Your task to perform on an android device: turn off priority inbox in the gmail app Image 0: 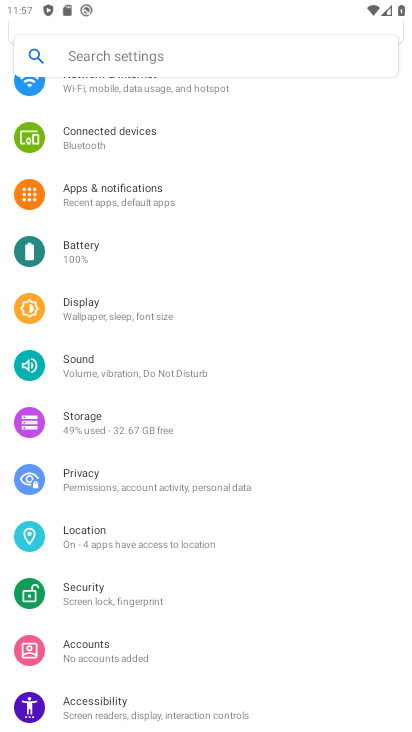
Step 0: press home button
Your task to perform on an android device: turn off priority inbox in the gmail app Image 1: 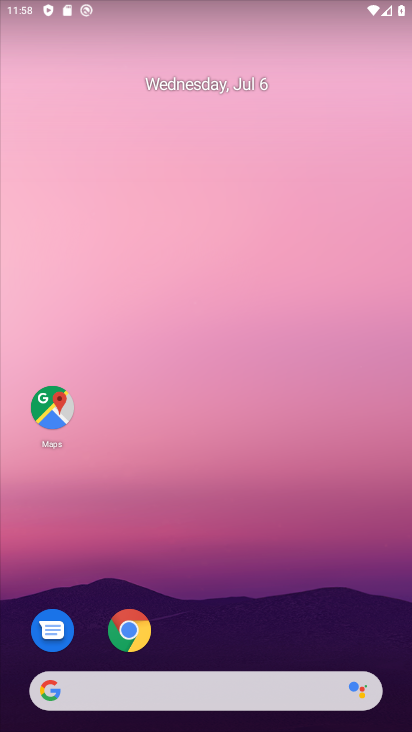
Step 1: drag from (209, 648) to (198, 140)
Your task to perform on an android device: turn off priority inbox in the gmail app Image 2: 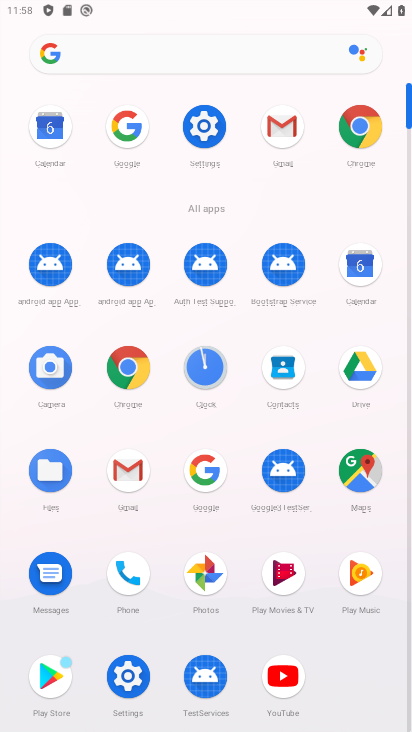
Step 2: click (295, 138)
Your task to perform on an android device: turn off priority inbox in the gmail app Image 3: 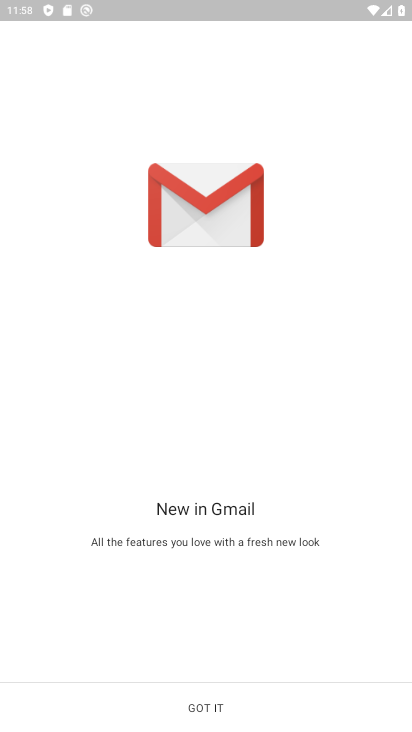
Step 3: click (210, 708)
Your task to perform on an android device: turn off priority inbox in the gmail app Image 4: 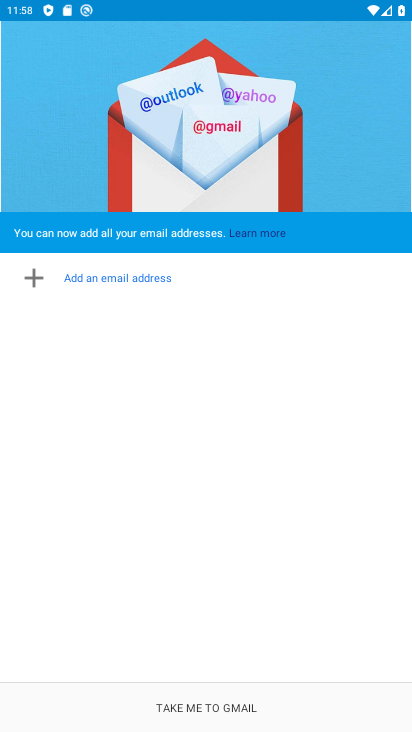
Step 4: click (212, 709)
Your task to perform on an android device: turn off priority inbox in the gmail app Image 5: 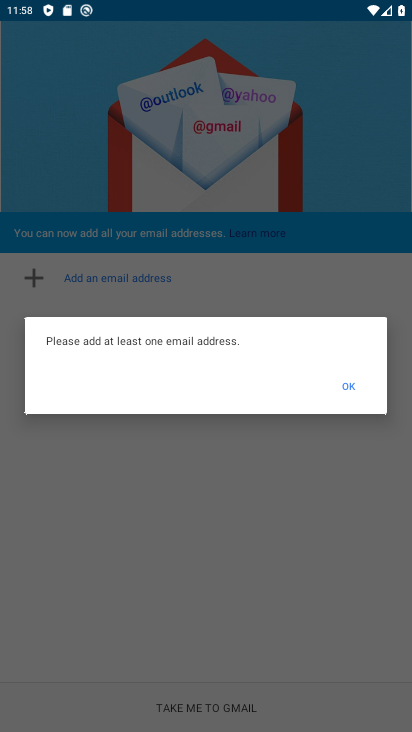
Step 5: task complete